Your task to perform on an android device: Open Yahoo.com Image 0: 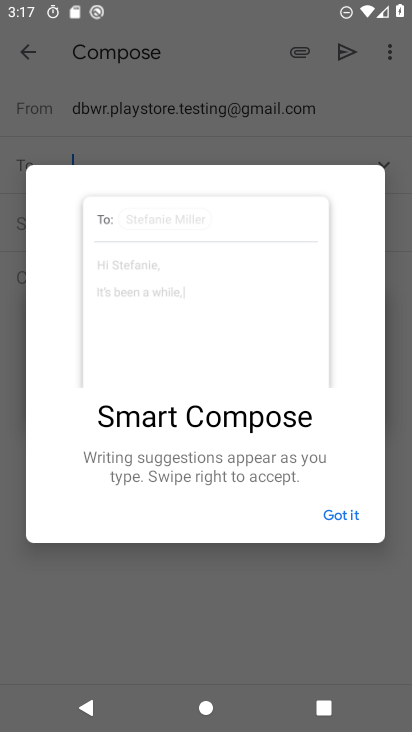
Step 0: press home button
Your task to perform on an android device: Open Yahoo.com Image 1: 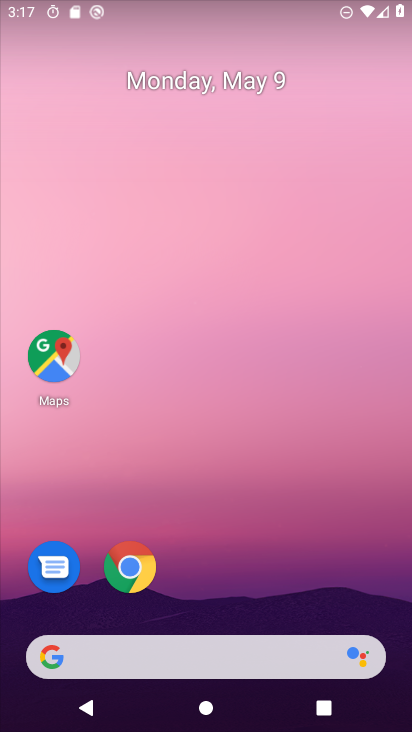
Step 1: click (129, 564)
Your task to perform on an android device: Open Yahoo.com Image 2: 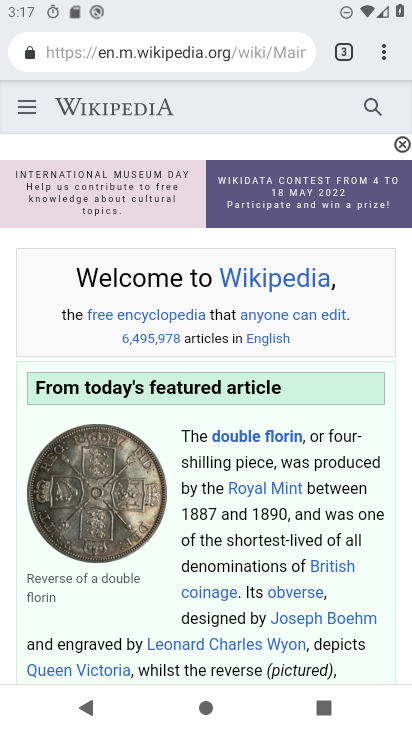
Step 2: click (341, 56)
Your task to perform on an android device: Open Yahoo.com Image 3: 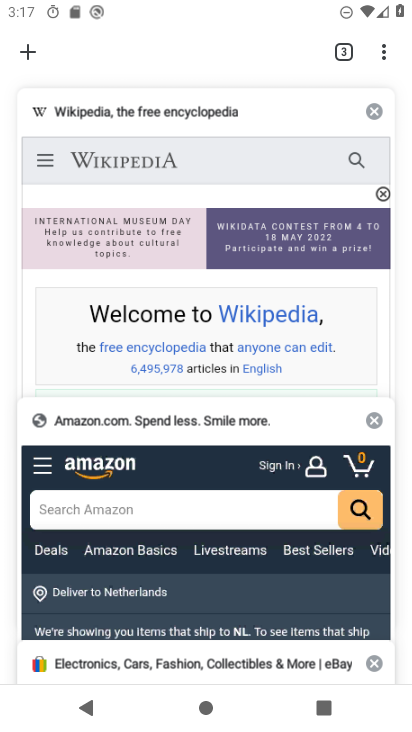
Step 3: click (24, 54)
Your task to perform on an android device: Open Yahoo.com Image 4: 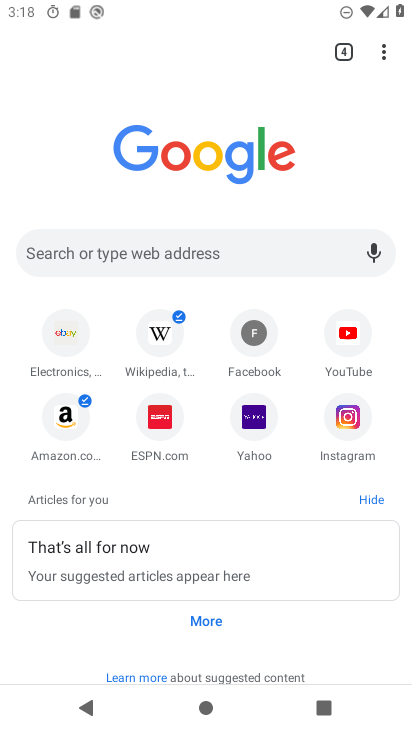
Step 4: click (252, 427)
Your task to perform on an android device: Open Yahoo.com Image 5: 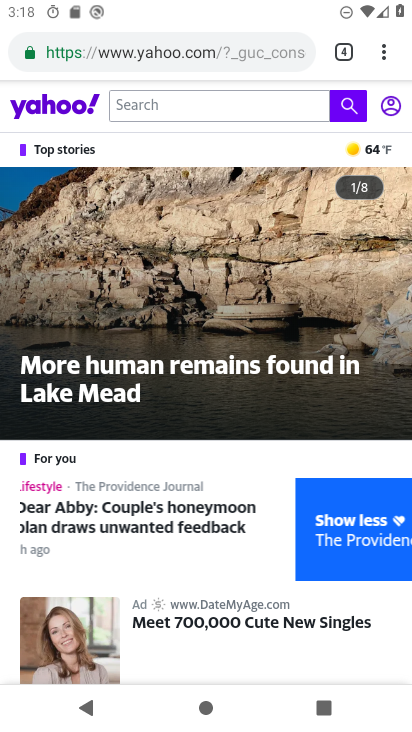
Step 5: task complete